Your task to perform on an android device: Check the news Image 0: 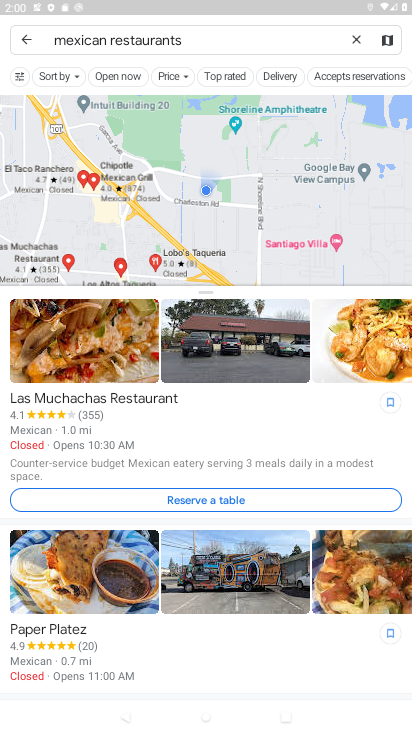
Step 0: press home button
Your task to perform on an android device: Check the news Image 1: 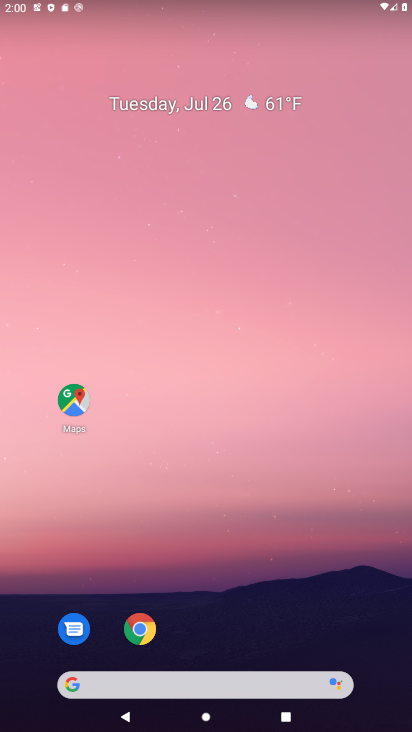
Step 1: click (168, 699)
Your task to perform on an android device: Check the news Image 2: 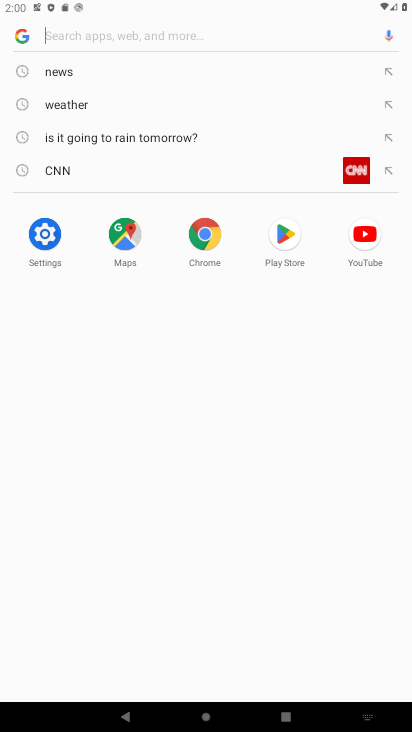
Step 2: click (21, 43)
Your task to perform on an android device: Check the news Image 3: 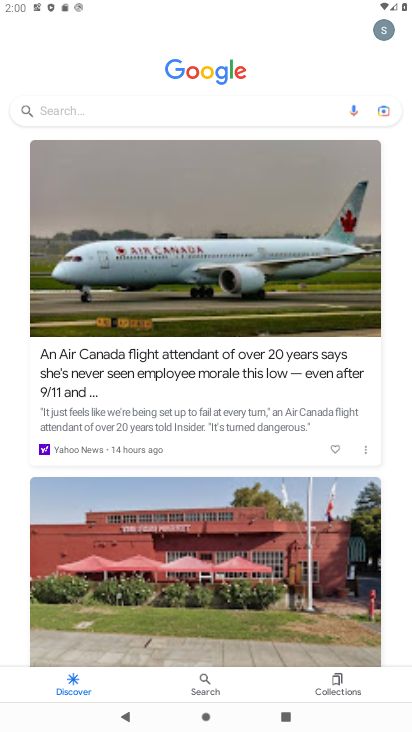
Step 3: task complete